Your task to perform on an android device: toggle show notifications on the lock screen Image 0: 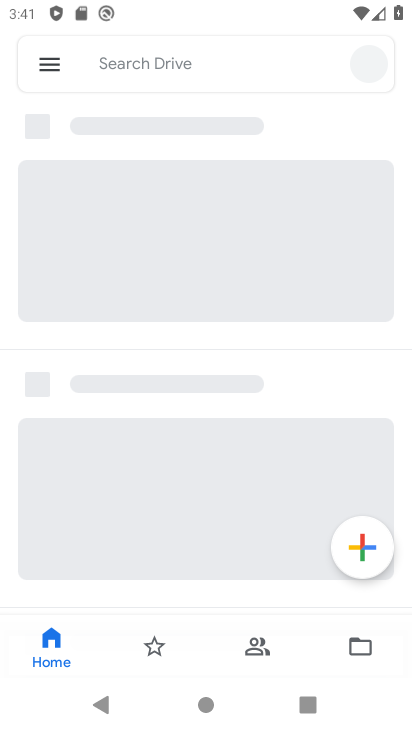
Step 0: press home button
Your task to perform on an android device: toggle show notifications on the lock screen Image 1: 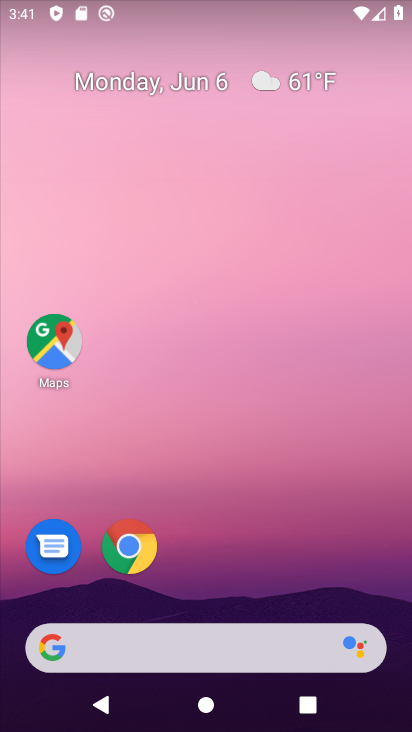
Step 1: drag from (252, 719) to (259, 107)
Your task to perform on an android device: toggle show notifications on the lock screen Image 2: 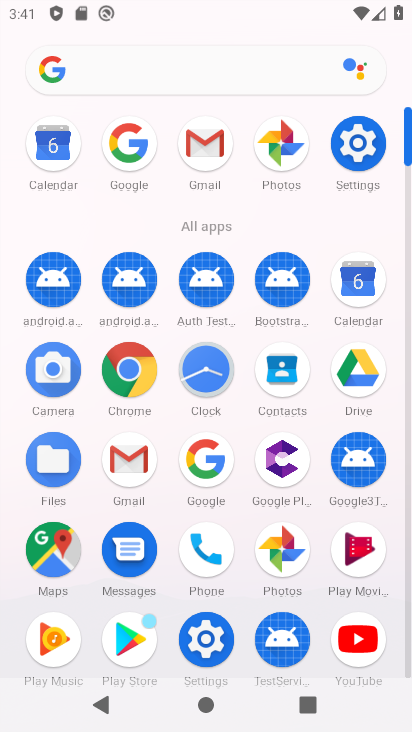
Step 2: click (355, 147)
Your task to perform on an android device: toggle show notifications on the lock screen Image 3: 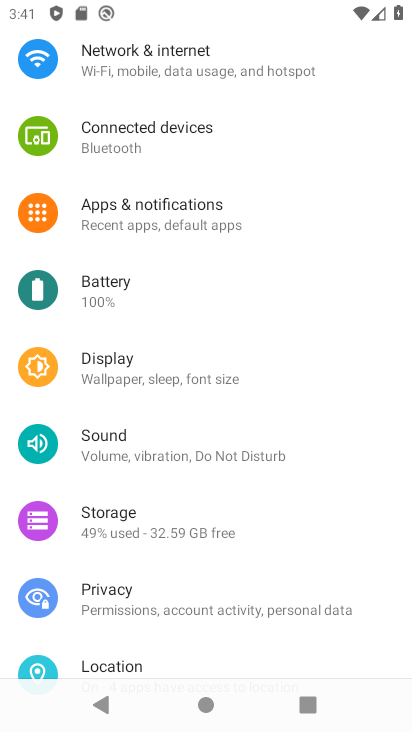
Step 3: click (186, 222)
Your task to perform on an android device: toggle show notifications on the lock screen Image 4: 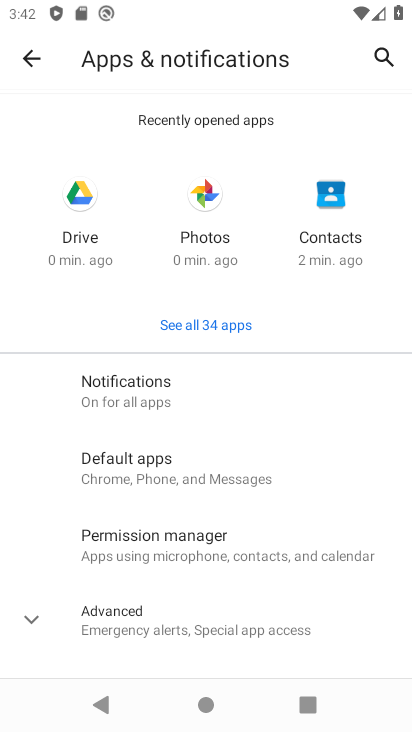
Step 4: click (132, 389)
Your task to perform on an android device: toggle show notifications on the lock screen Image 5: 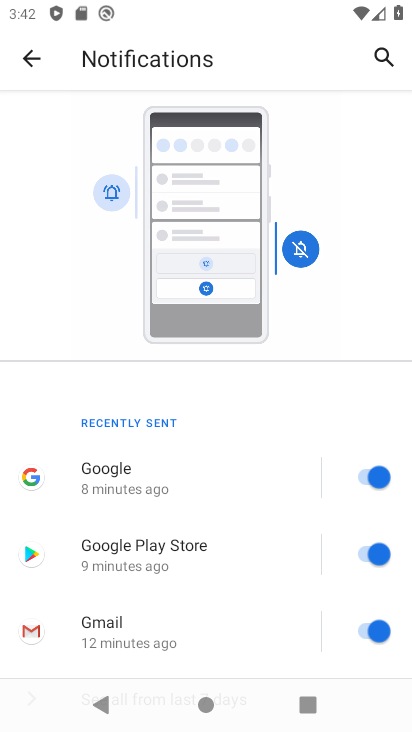
Step 5: drag from (145, 662) to (134, 369)
Your task to perform on an android device: toggle show notifications on the lock screen Image 6: 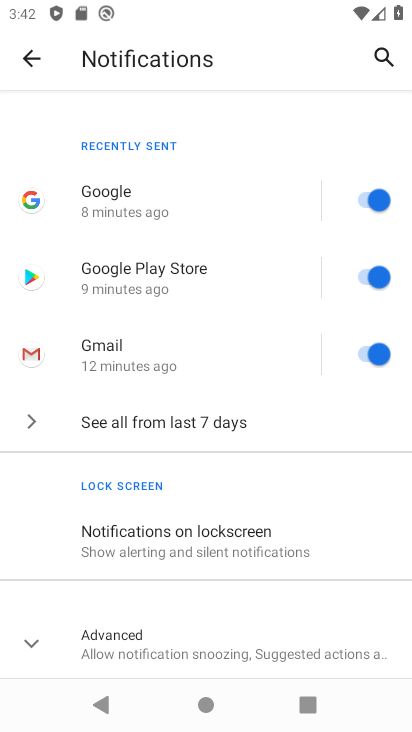
Step 6: click (140, 543)
Your task to perform on an android device: toggle show notifications on the lock screen Image 7: 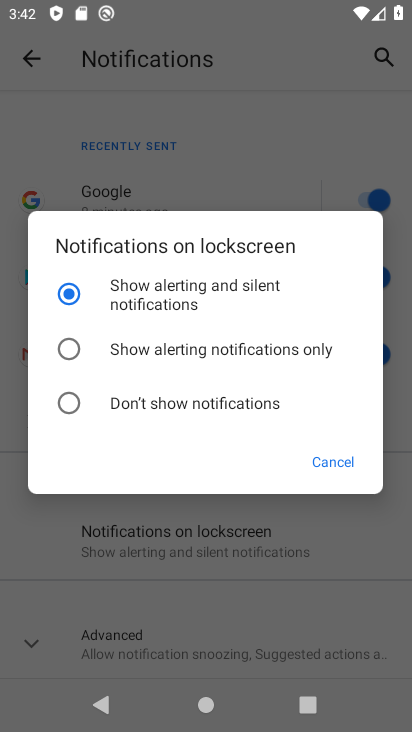
Step 7: click (68, 397)
Your task to perform on an android device: toggle show notifications on the lock screen Image 8: 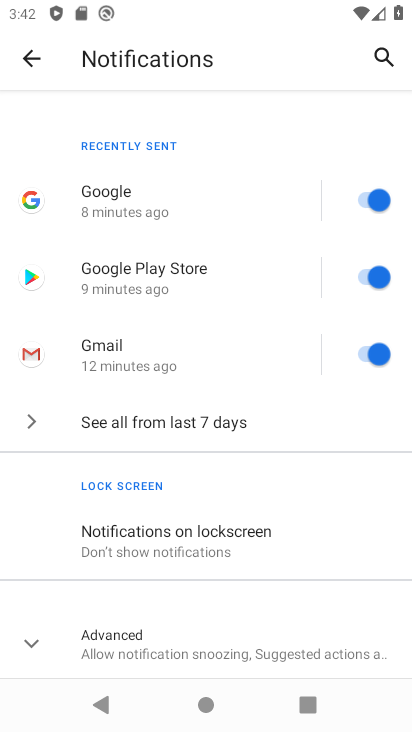
Step 8: task complete